Your task to perform on an android device: What is the news today? Image 0: 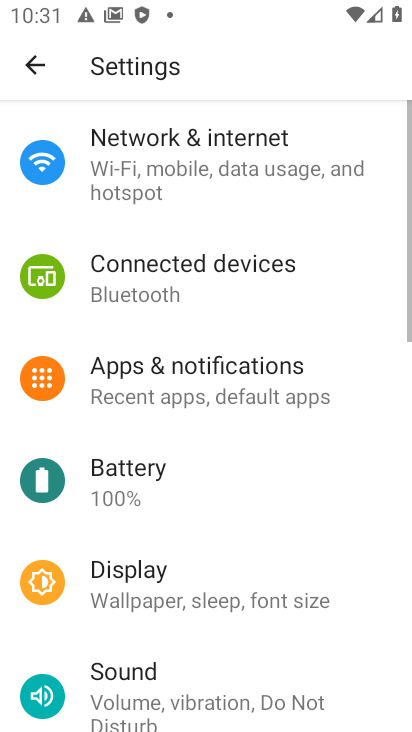
Step 0: press home button
Your task to perform on an android device: What is the news today? Image 1: 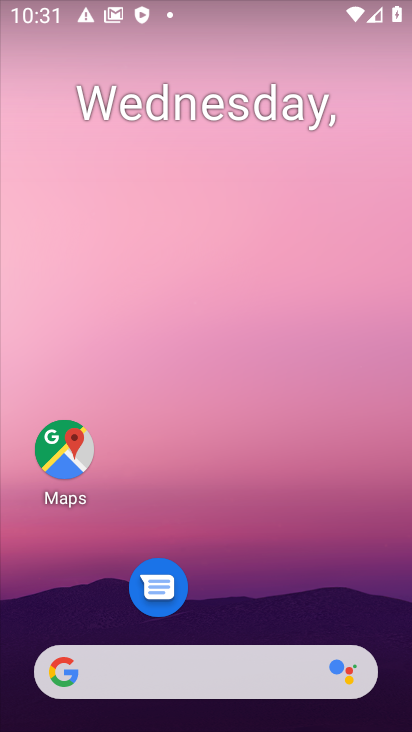
Step 1: task complete